Your task to perform on an android device: turn on improve location accuracy Image 0: 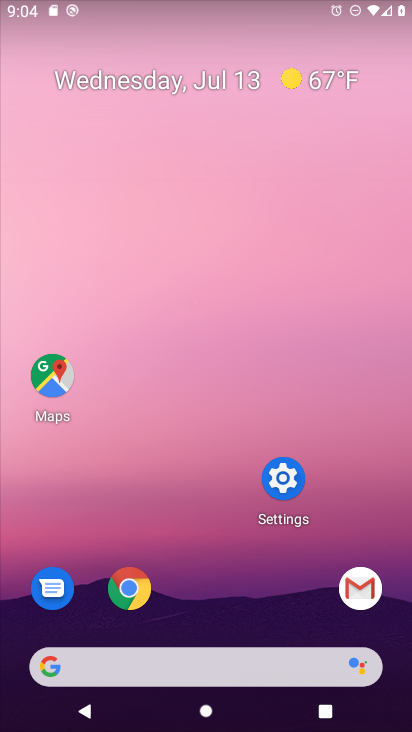
Step 0: click (285, 479)
Your task to perform on an android device: turn on improve location accuracy Image 1: 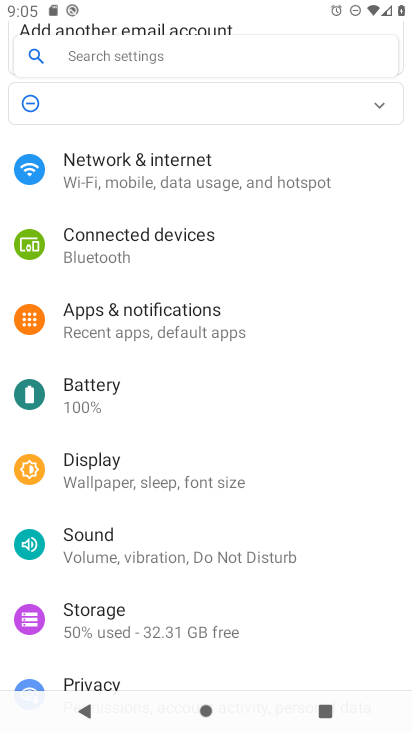
Step 1: drag from (198, 483) to (241, 392)
Your task to perform on an android device: turn on improve location accuracy Image 2: 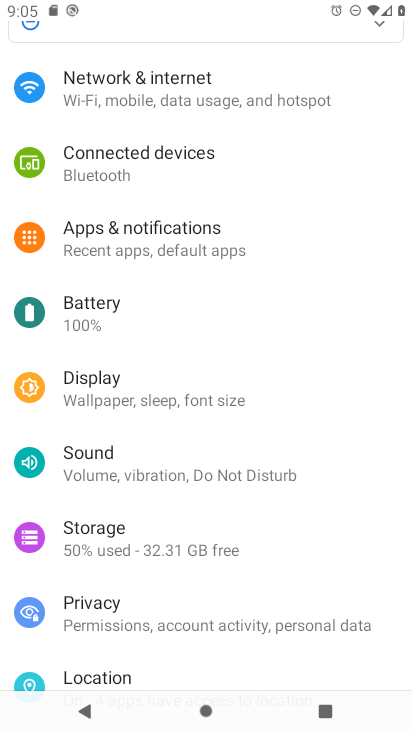
Step 2: click (110, 673)
Your task to perform on an android device: turn on improve location accuracy Image 3: 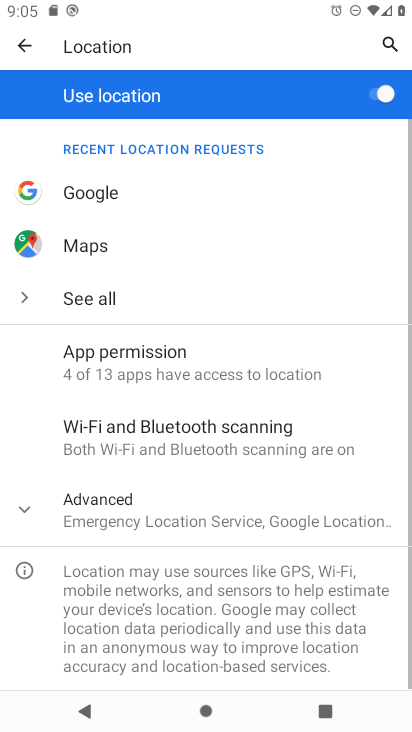
Step 3: click (37, 503)
Your task to perform on an android device: turn on improve location accuracy Image 4: 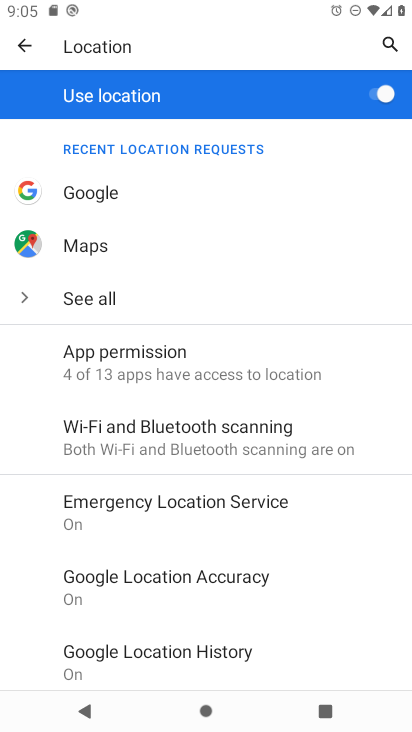
Step 4: click (208, 569)
Your task to perform on an android device: turn on improve location accuracy Image 5: 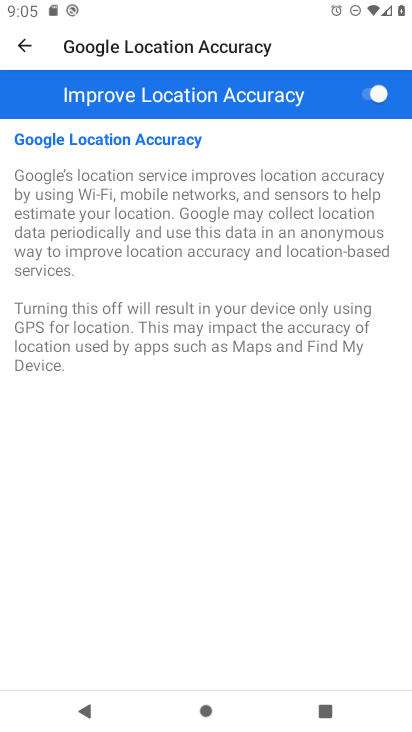
Step 5: click (377, 97)
Your task to perform on an android device: turn on improve location accuracy Image 6: 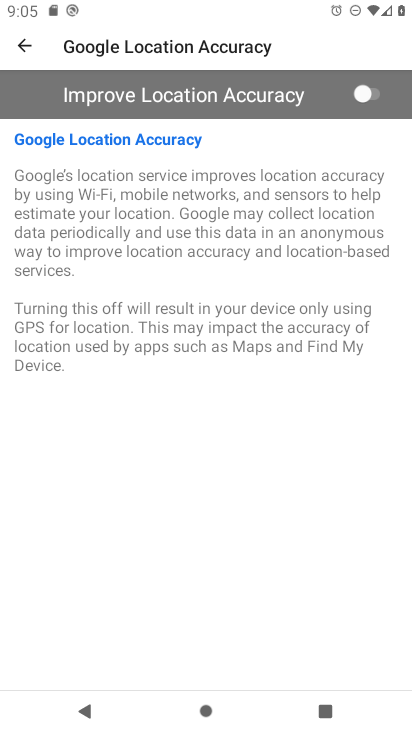
Step 6: click (375, 97)
Your task to perform on an android device: turn on improve location accuracy Image 7: 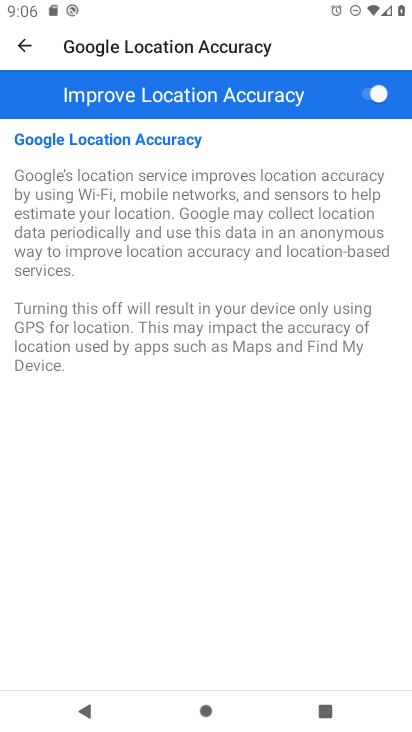
Step 7: task complete